Your task to perform on an android device: toggle priority inbox in the gmail app Image 0: 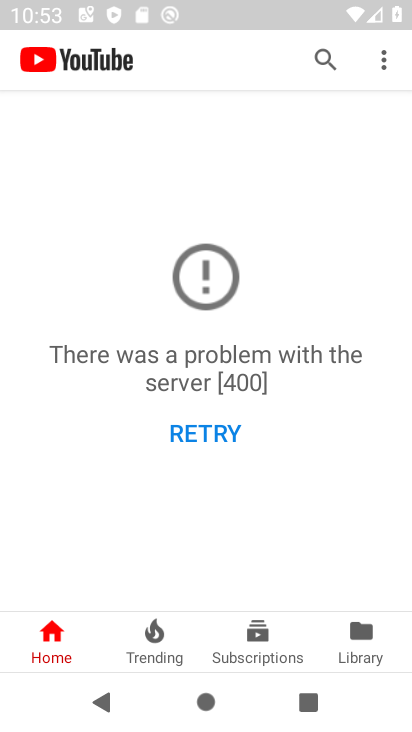
Step 0: press home button
Your task to perform on an android device: toggle priority inbox in the gmail app Image 1: 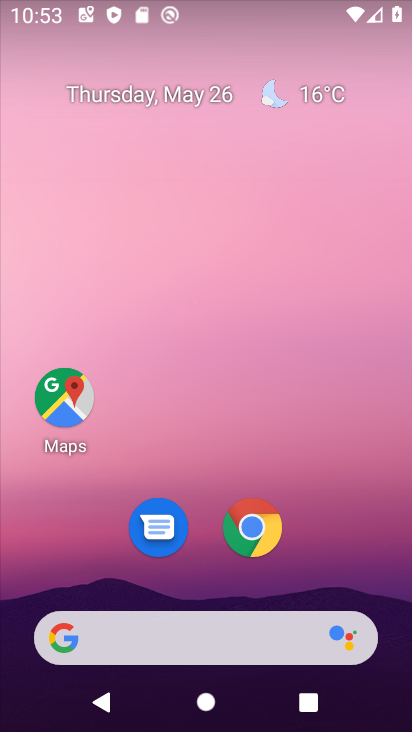
Step 1: drag from (218, 586) to (154, 1)
Your task to perform on an android device: toggle priority inbox in the gmail app Image 2: 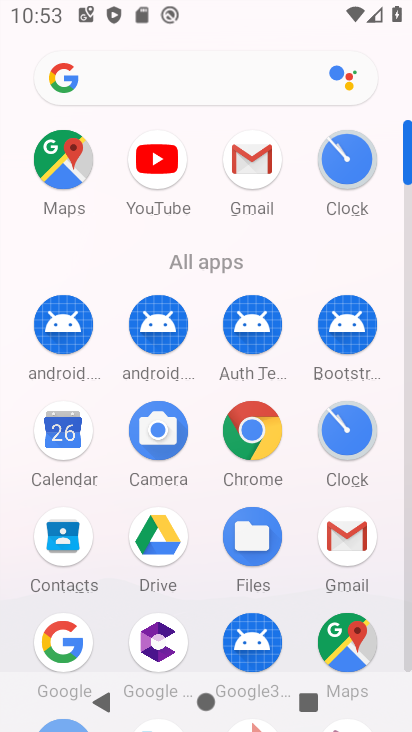
Step 2: click (347, 529)
Your task to perform on an android device: toggle priority inbox in the gmail app Image 3: 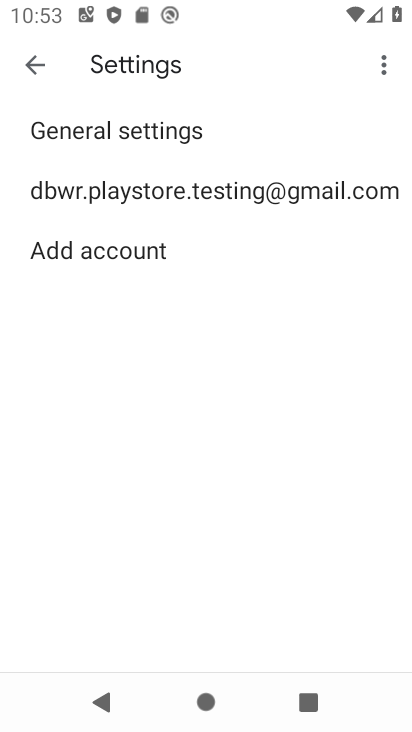
Step 3: click (111, 178)
Your task to perform on an android device: toggle priority inbox in the gmail app Image 4: 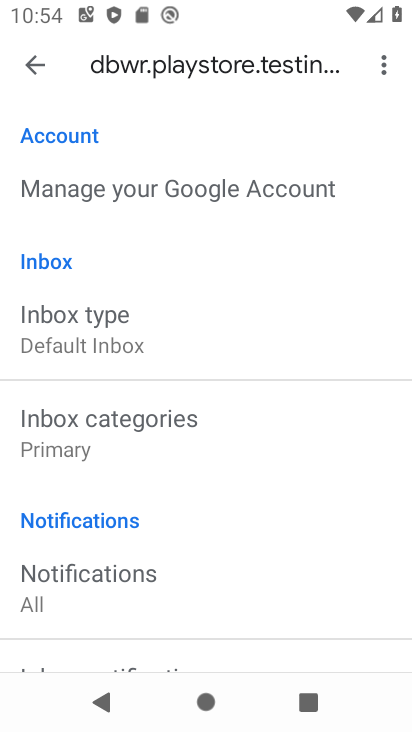
Step 4: click (105, 346)
Your task to perform on an android device: toggle priority inbox in the gmail app Image 5: 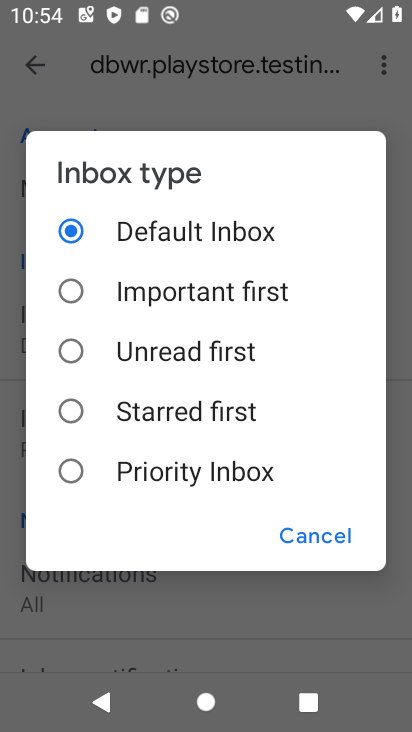
Step 5: click (160, 475)
Your task to perform on an android device: toggle priority inbox in the gmail app Image 6: 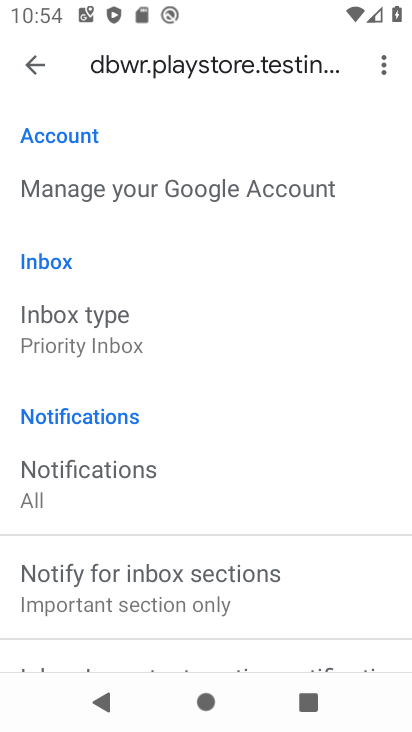
Step 6: task complete